Your task to perform on an android device: toggle pop-ups in chrome Image 0: 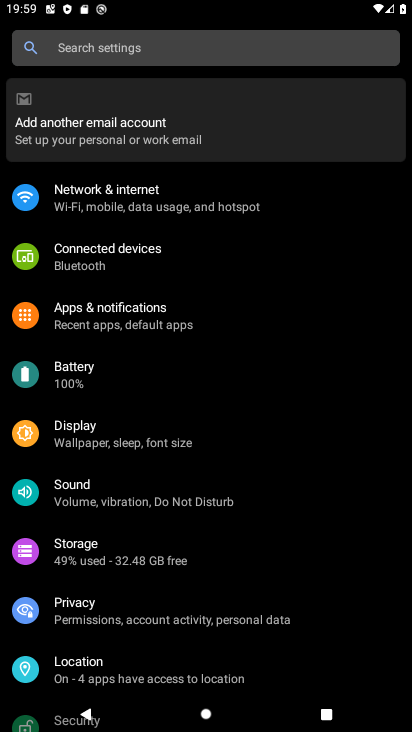
Step 0: press home button
Your task to perform on an android device: toggle pop-ups in chrome Image 1: 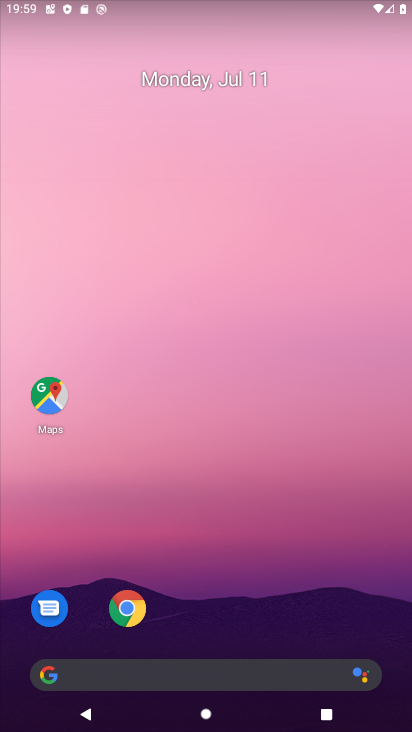
Step 1: click (155, 617)
Your task to perform on an android device: toggle pop-ups in chrome Image 2: 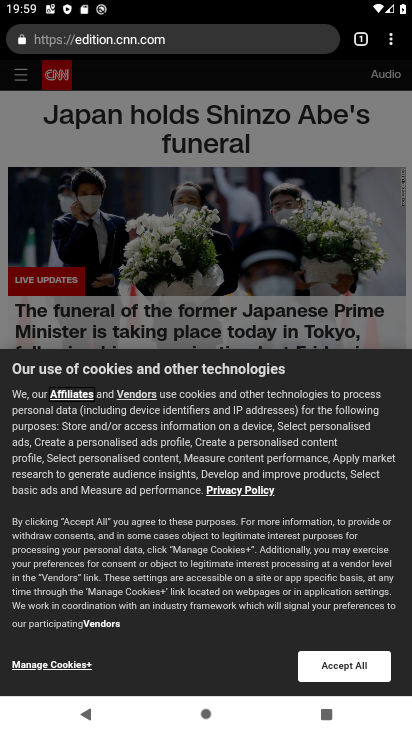
Step 2: click (391, 42)
Your task to perform on an android device: toggle pop-ups in chrome Image 3: 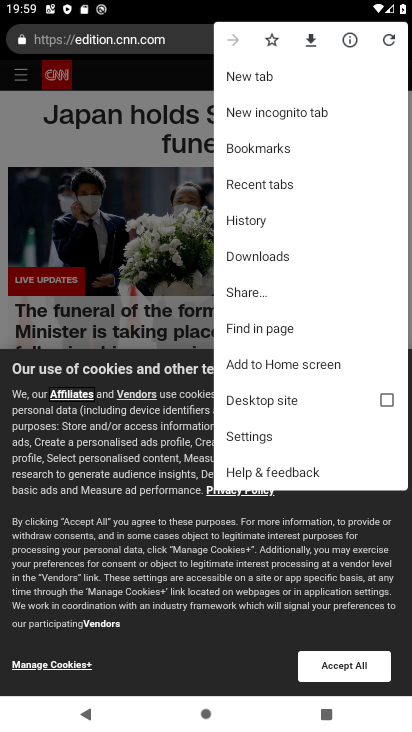
Step 3: click (283, 436)
Your task to perform on an android device: toggle pop-ups in chrome Image 4: 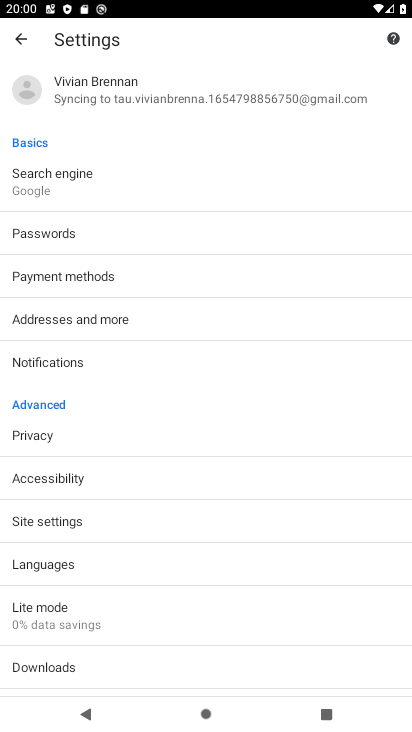
Step 4: click (35, 513)
Your task to perform on an android device: toggle pop-ups in chrome Image 5: 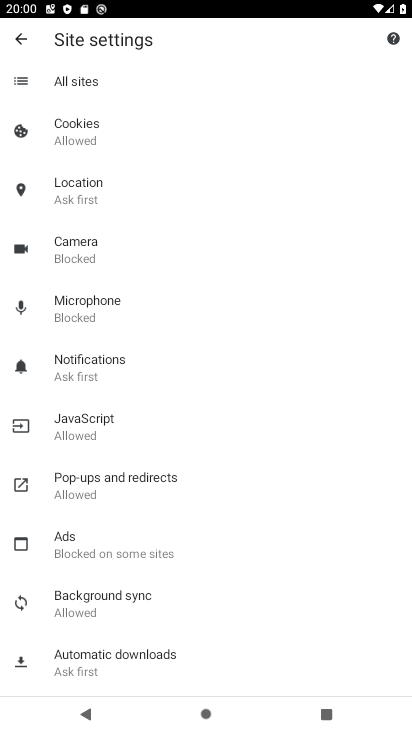
Step 5: click (178, 484)
Your task to perform on an android device: toggle pop-ups in chrome Image 6: 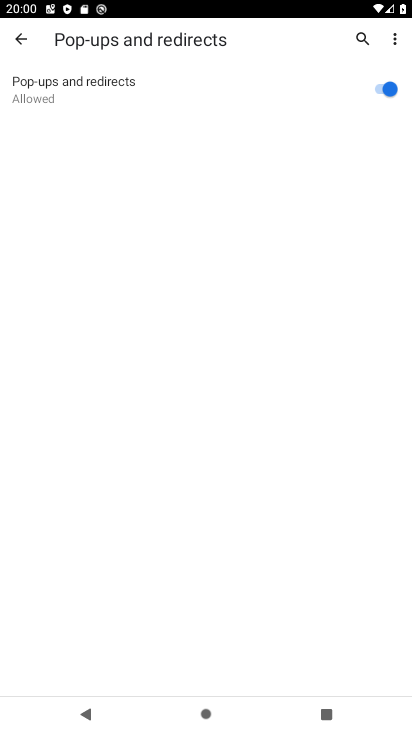
Step 6: task complete